Your task to perform on an android device: Open Chrome and go to settings Image 0: 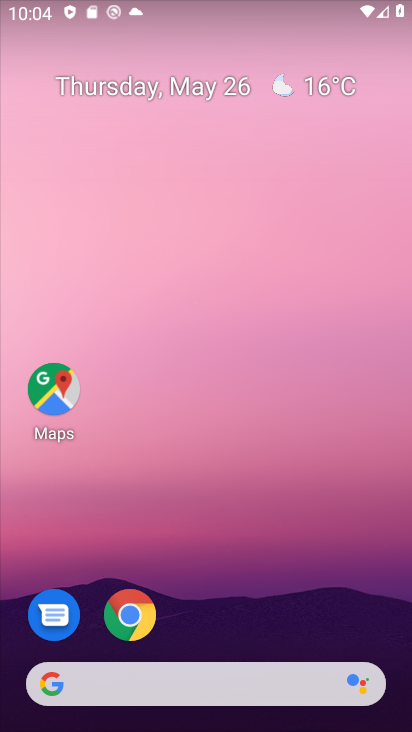
Step 0: drag from (283, 674) to (125, 236)
Your task to perform on an android device: Open Chrome and go to settings Image 1: 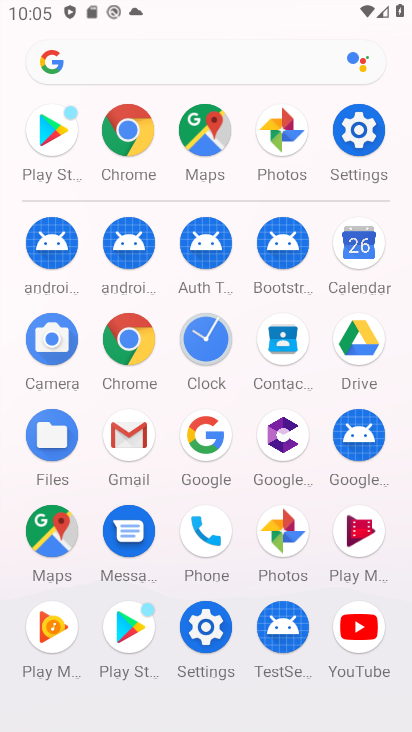
Step 1: click (128, 328)
Your task to perform on an android device: Open Chrome and go to settings Image 2: 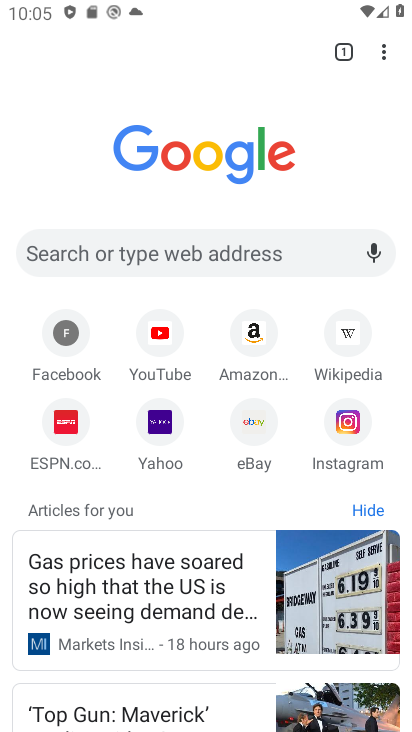
Step 2: click (376, 62)
Your task to perform on an android device: Open Chrome and go to settings Image 3: 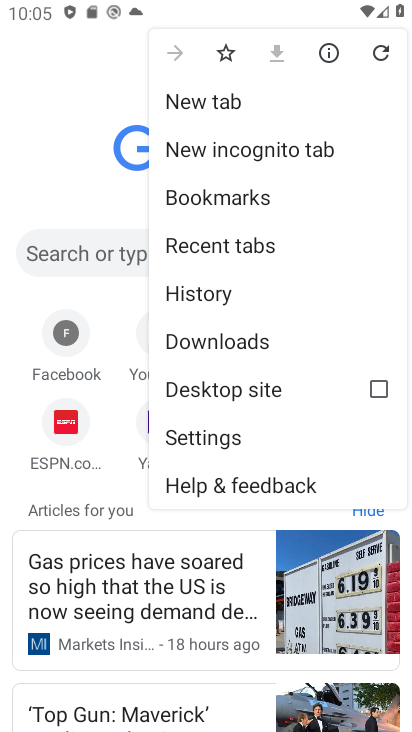
Step 3: click (255, 432)
Your task to perform on an android device: Open Chrome and go to settings Image 4: 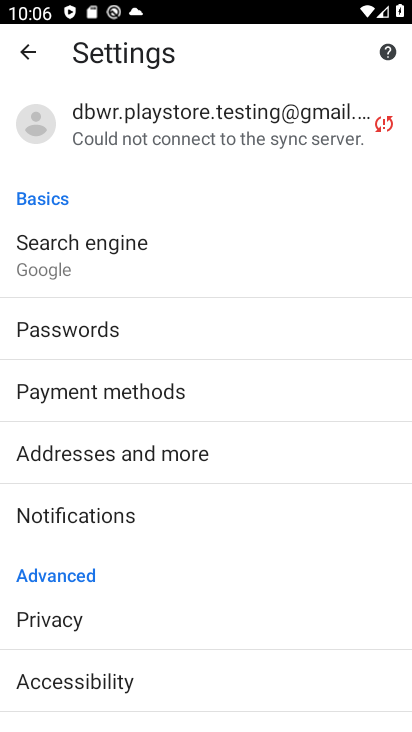
Step 4: task complete